Your task to perform on an android device: Open display settings Image 0: 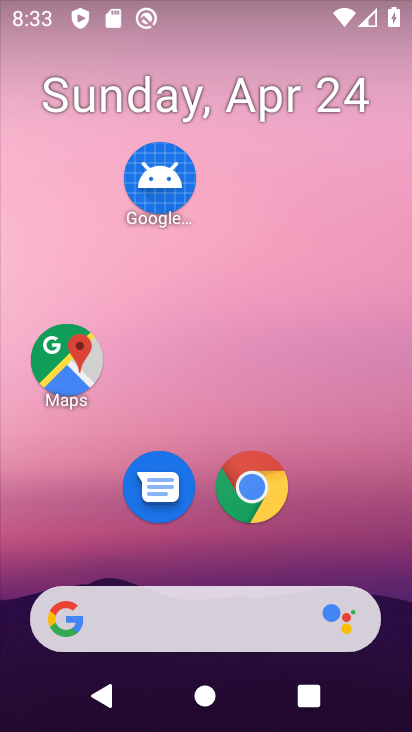
Step 0: drag from (332, 476) to (324, 97)
Your task to perform on an android device: Open display settings Image 1: 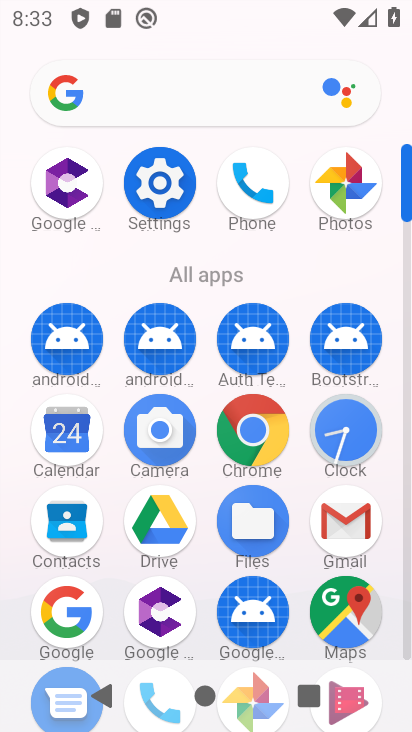
Step 1: click (153, 163)
Your task to perform on an android device: Open display settings Image 2: 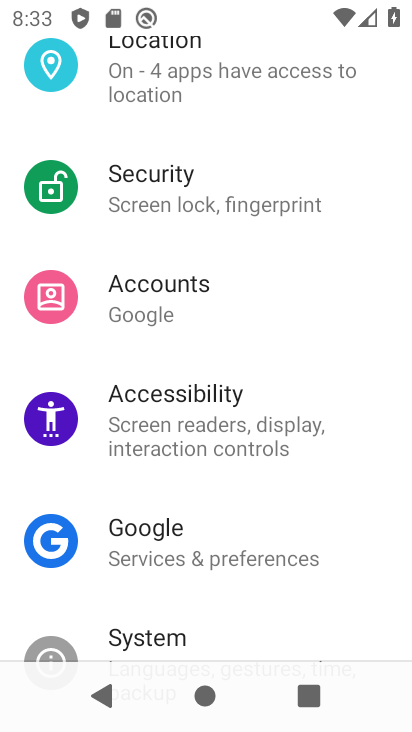
Step 2: drag from (371, 100) to (338, 576)
Your task to perform on an android device: Open display settings Image 3: 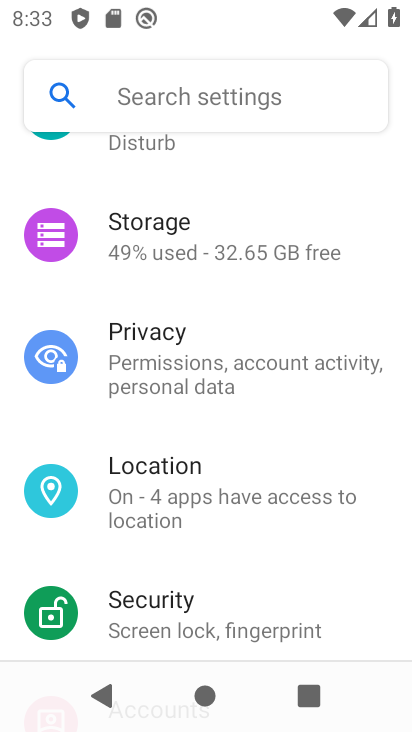
Step 3: drag from (364, 228) to (323, 656)
Your task to perform on an android device: Open display settings Image 4: 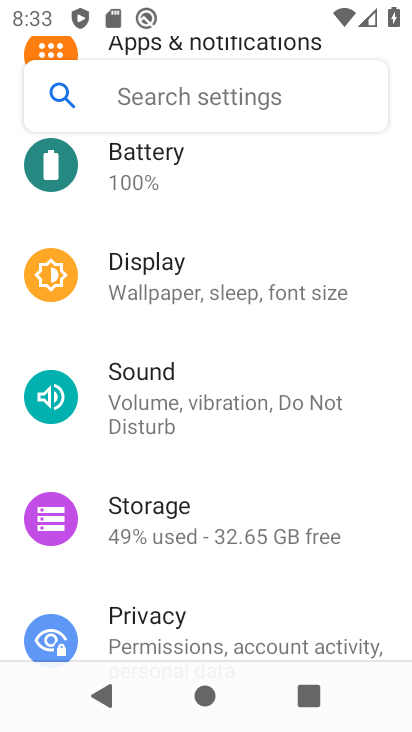
Step 4: click (114, 282)
Your task to perform on an android device: Open display settings Image 5: 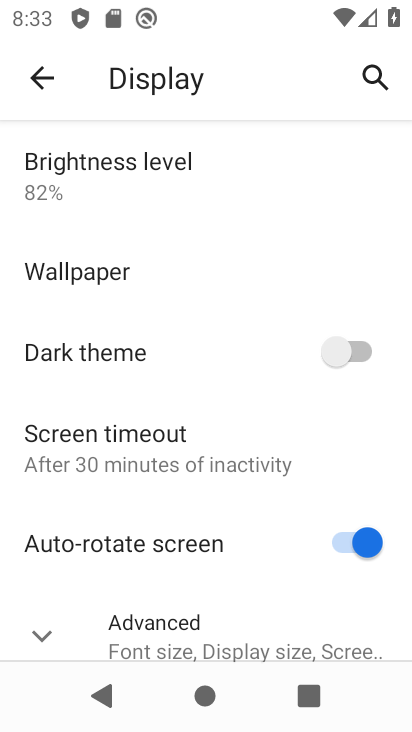
Step 5: click (211, 643)
Your task to perform on an android device: Open display settings Image 6: 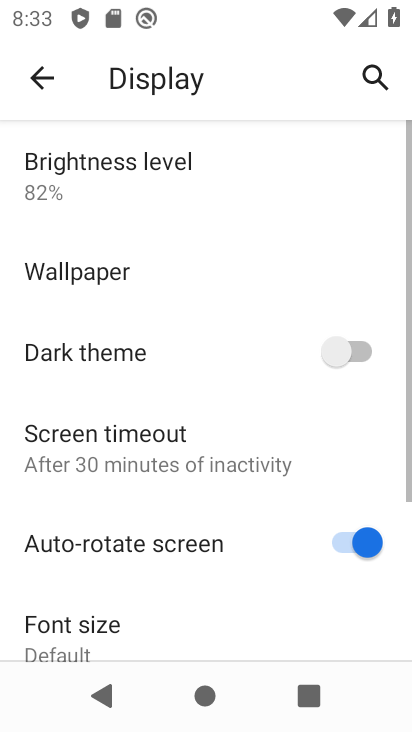
Step 6: task complete